Your task to perform on an android device: Open Youtube and go to the subscriptions tab Image 0: 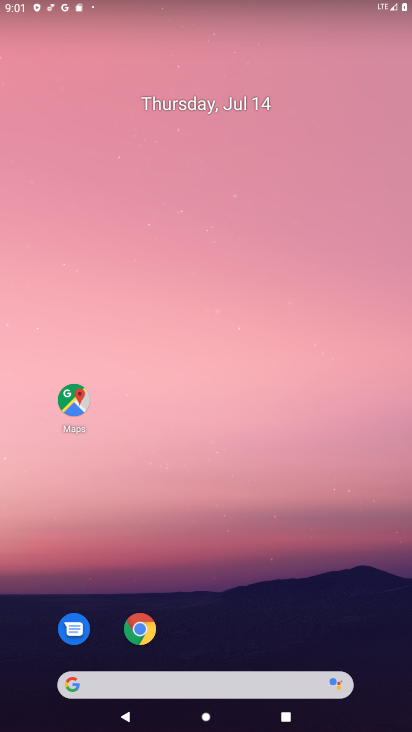
Step 0: drag from (31, 517) to (112, 337)
Your task to perform on an android device: Open Youtube and go to the subscriptions tab Image 1: 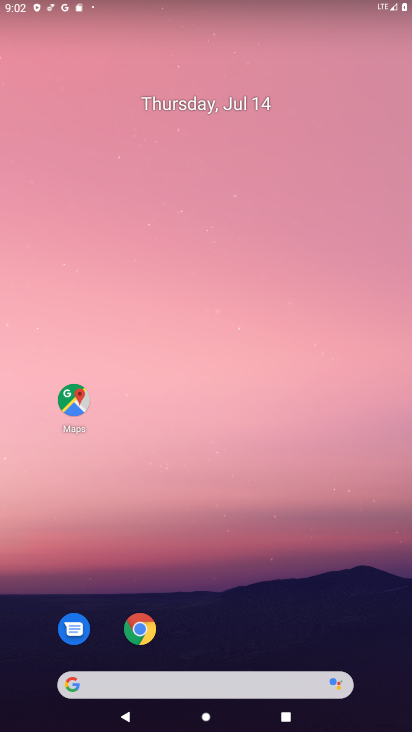
Step 1: drag from (31, 535) to (202, 97)
Your task to perform on an android device: Open Youtube and go to the subscriptions tab Image 2: 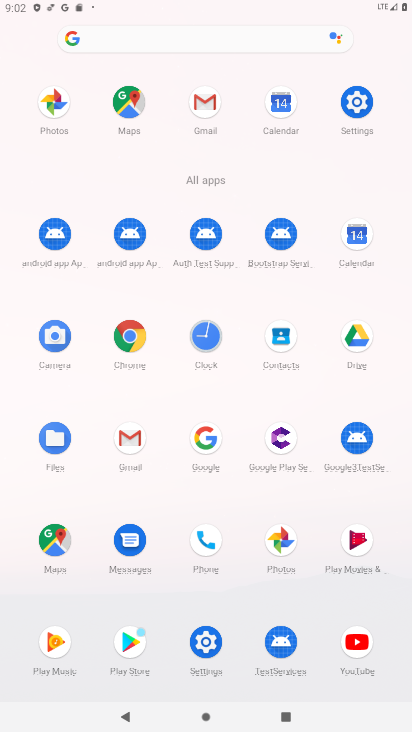
Step 2: click (378, 662)
Your task to perform on an android device: Open Youtube and go to the subscriptions tab Image 3: 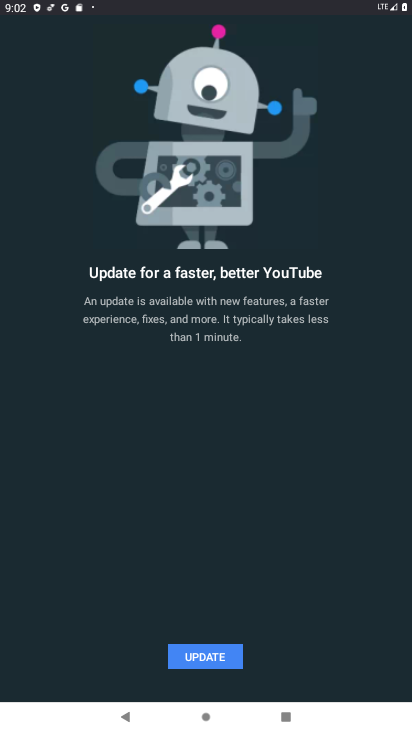
Step 3: task complete